Your task to perform on an android device: Open Yahoo.com Image 0: 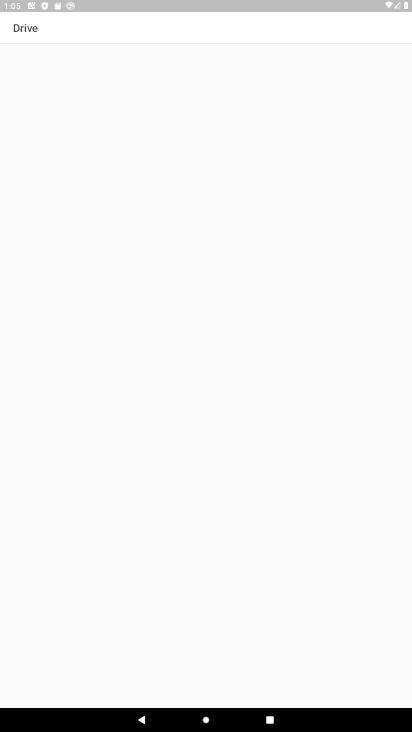
Step 0: press home button
Your task to perform on an android device: Open Yahoo.com Image 1: 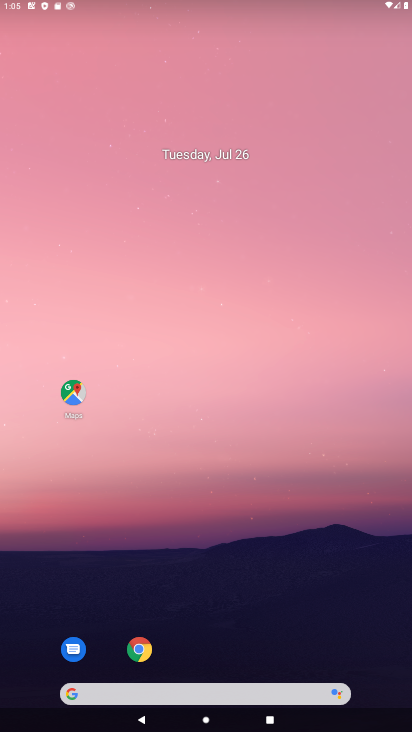
Step 1: drag from (347, 563) to (176, 58)
Your task to perform on an android device: Open Yahoo.com Image 2: 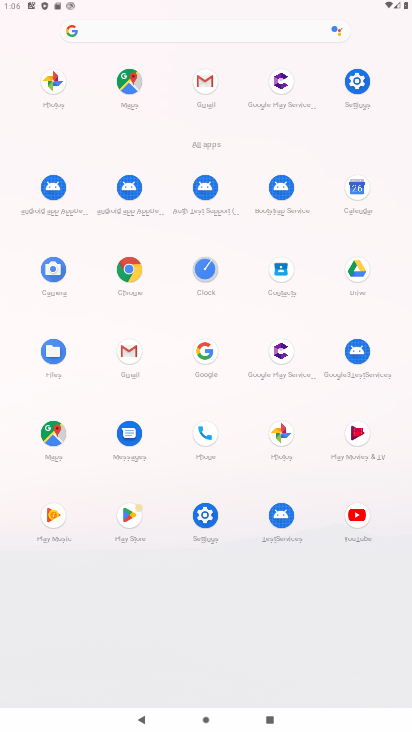
Step 2: click (210, 349)
Your task to perform on an android device: Open Yahoo.com Image 3: 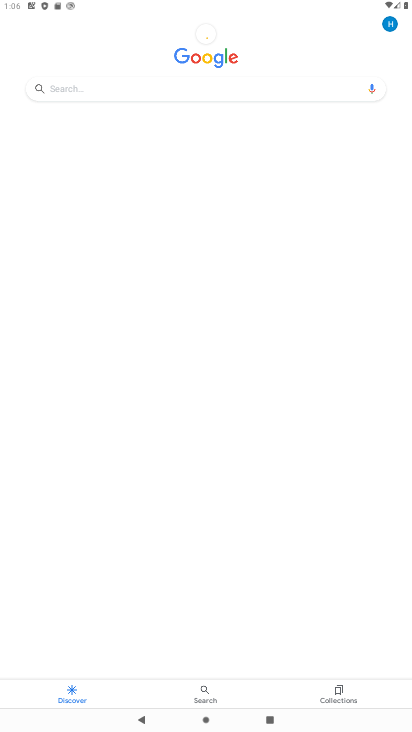
Step 3: click (82, 84)
Your task to perform on an android device: Open Yahoo.com Image 4: 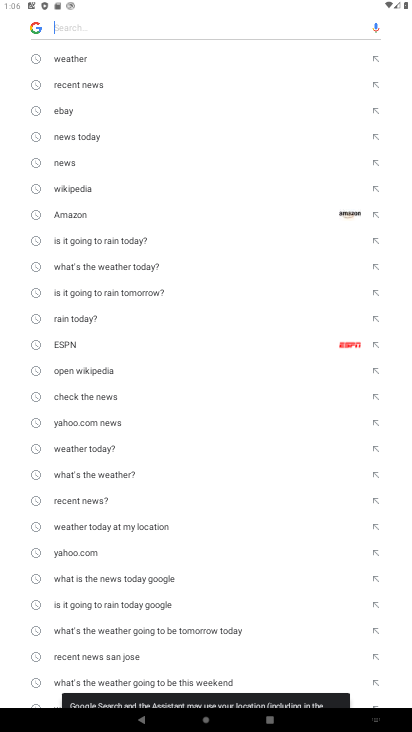
Step 4: click (69, 554)
Your task to perform on an android device: Open Yahoo.com Image 5: 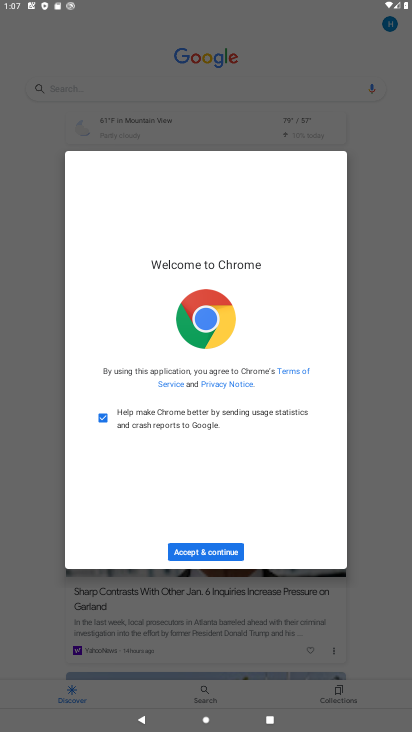
Step 5: click (204, 556)
Your task to perform on an android device: Open Yahoo.com Image 6: 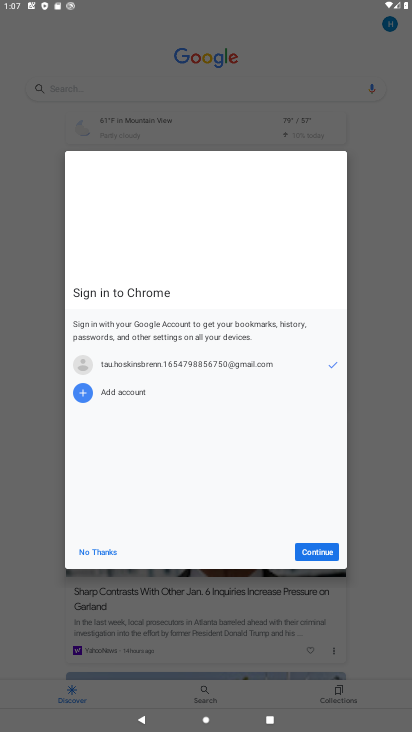
Step 6: click (313, 554)
Your task to perform on an android device: Open Yahoo.com Image 7: 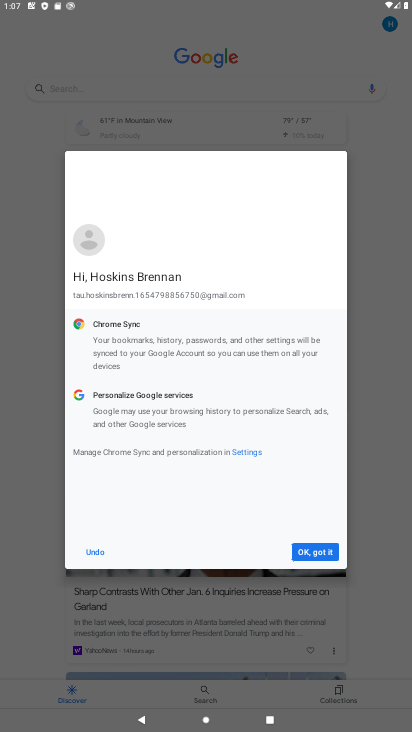
Step 7: click (313, 554)
Your task to perform on an android device: Open Yahoo.com Image 8: 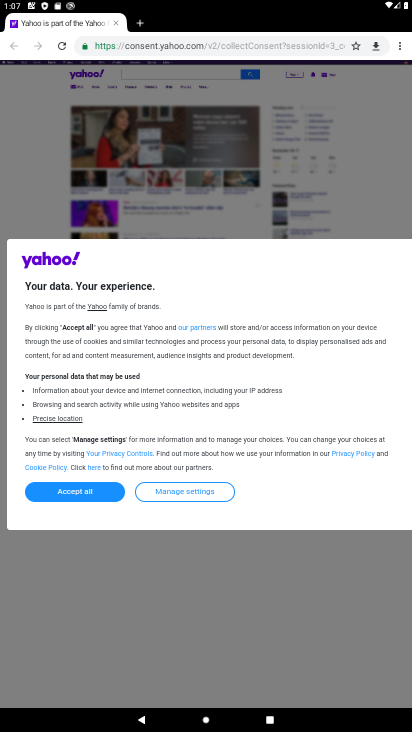
Step 8: click (78, 498)
Your task to perform on an android device: Open Yahoo.com Image 9: 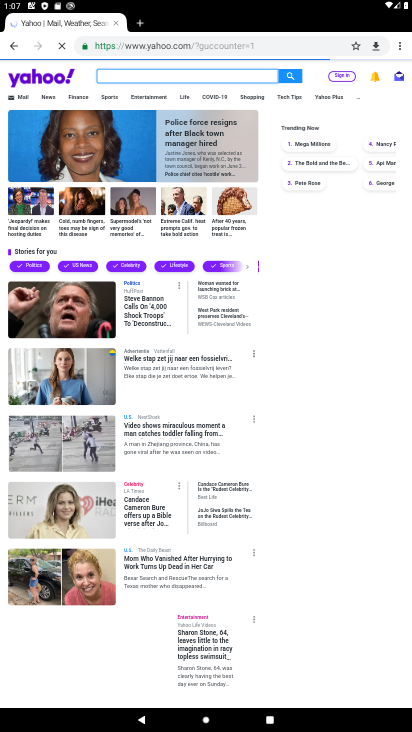
Step 9: task complete